Your task to perform on an android device: open the mobile data screen to see how much data has been used Image 0: 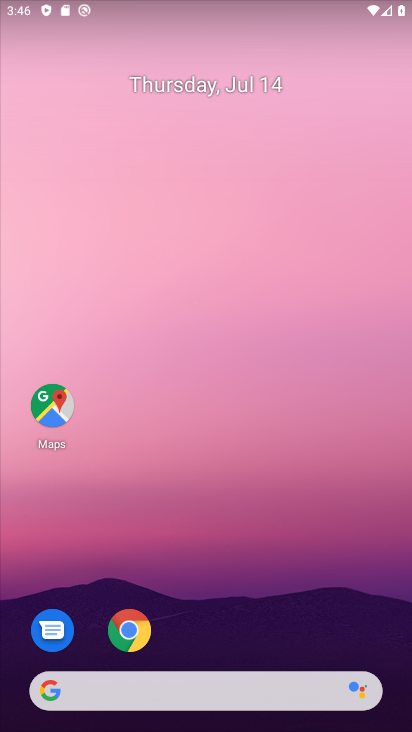
Step 0: drag from (223, 611) to (288, 16)
Your task to perform on an android device: open the mobile data screen to see how much data has been used Image 1: 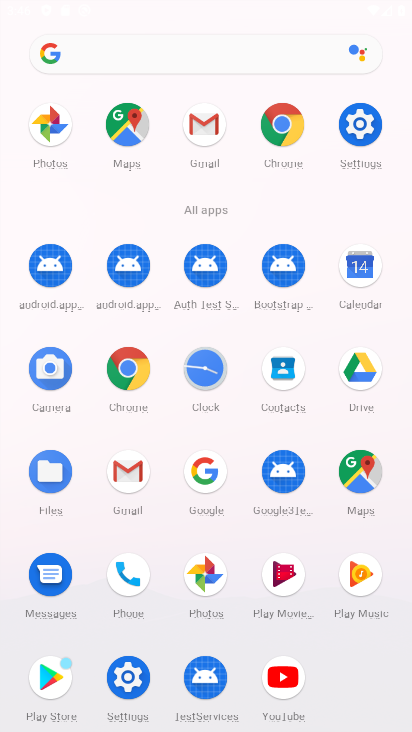
Step 1: click (374, 132)
Your task to perform on an android device: open the mobile data screen to see how much data has been used Image 2: 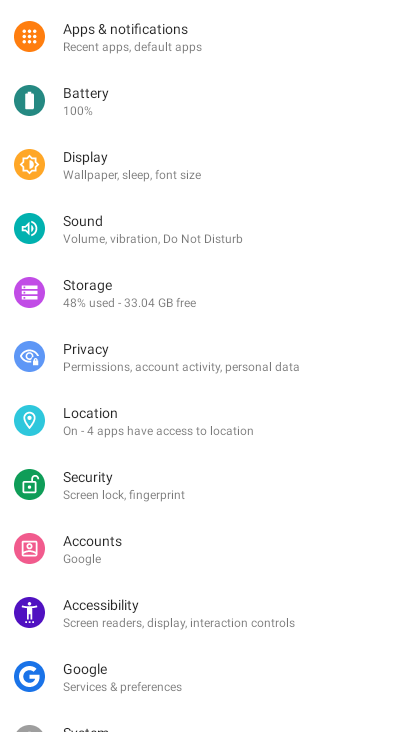
Step 2: drag from (193, 115) to (186, 561)
Your task to perform on an android device: open the mobile data screen to see how much data has been used Image 3: 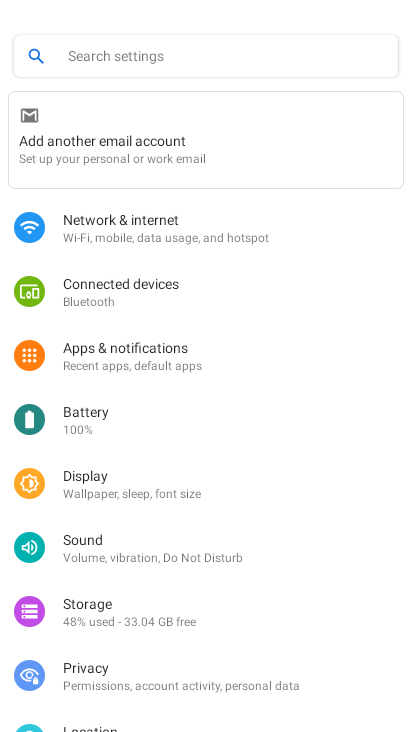
Step 3: click (155, 216)
Your task to perform on an android device: open the mobile data screen to see how much data has been used Image 4: 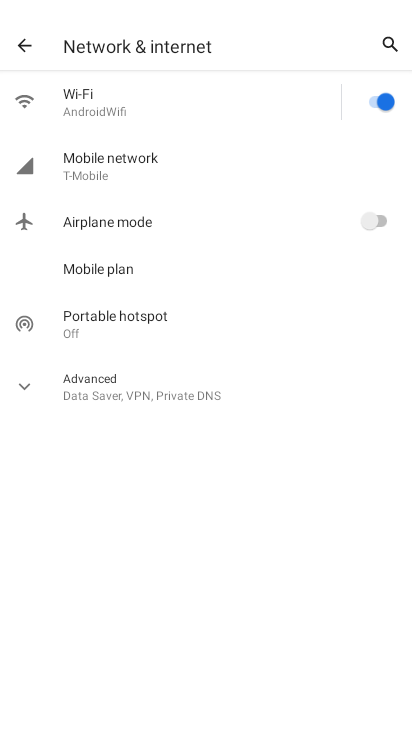
Step 4: click (160, 166)
Your task to perform on an android device: open the mobile data screen to see how much data has been used Image 5: 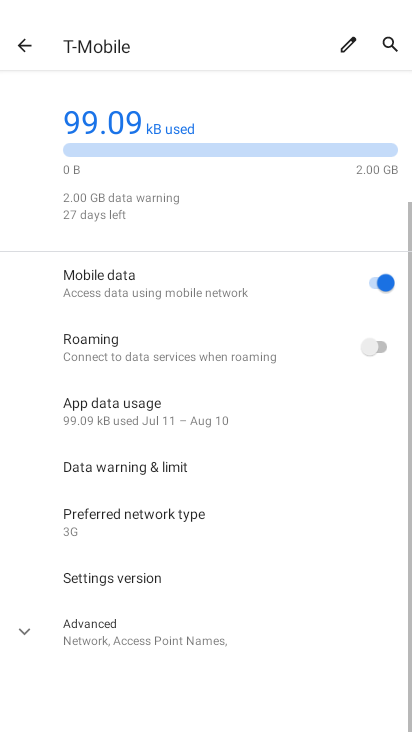
Step 5: task complete